Your task to perform on an android device: Play the last video I watched on Youtube Image 0: 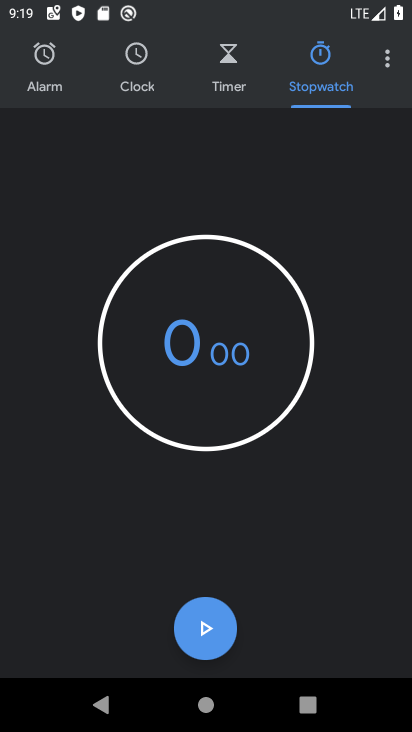
Step 0: press home button
Your task to perform on an android device: Play the last video I watched on Youtube Image 1: 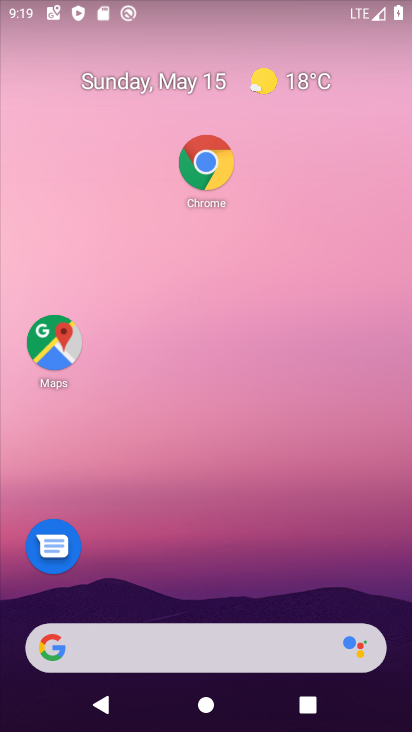
Step 1: drag from (336, 562) to (334, 191)
Your task to perform on an android device: Play the last video I watched on Youtube Image 2: 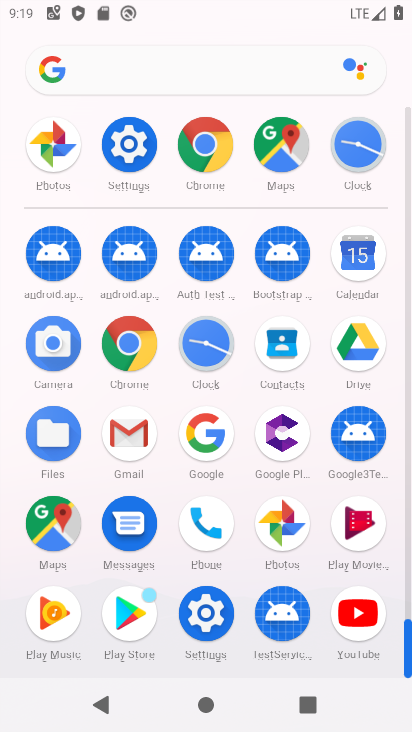
Step 2: click (354, 622)
Your task to perform on an android device: Play the last video I watched on Youtube Image 3: 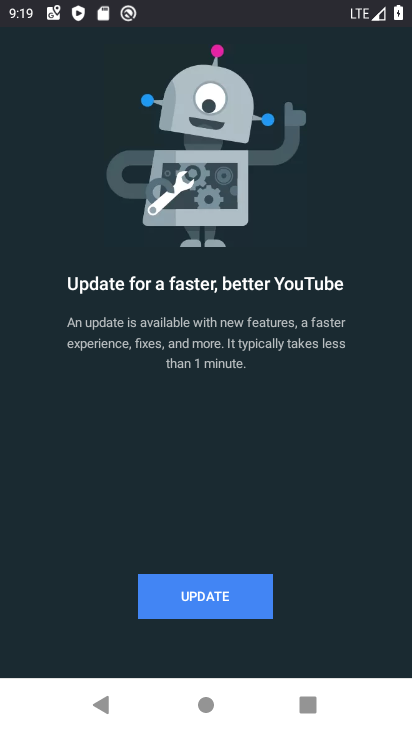
Step 3: task complete